Your task to perform on an android device: open app "Etsy: Buy & Sell Unique Items" Image 0: 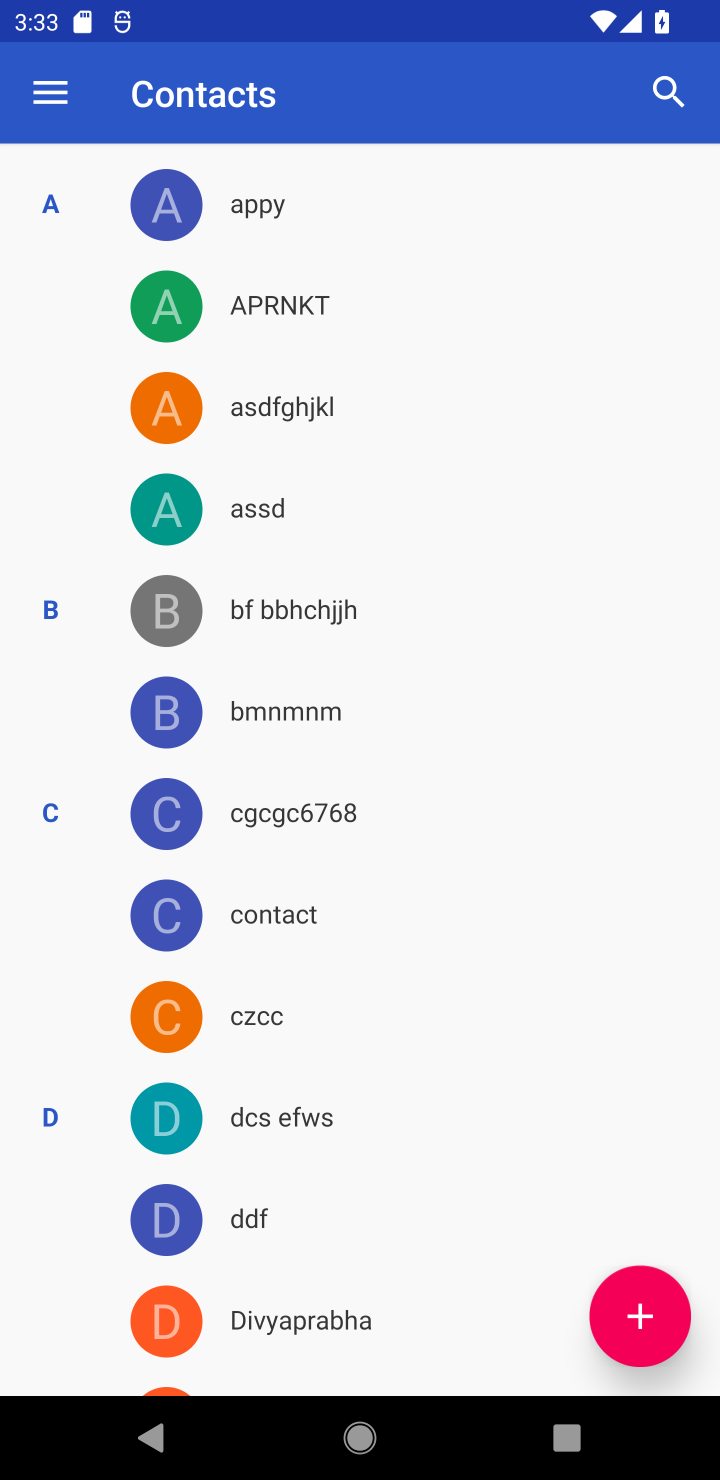
Step 0: press home button
Your task to perform on an android device: open app "Etsy: Buy & Sell Unique Items" Image 1: 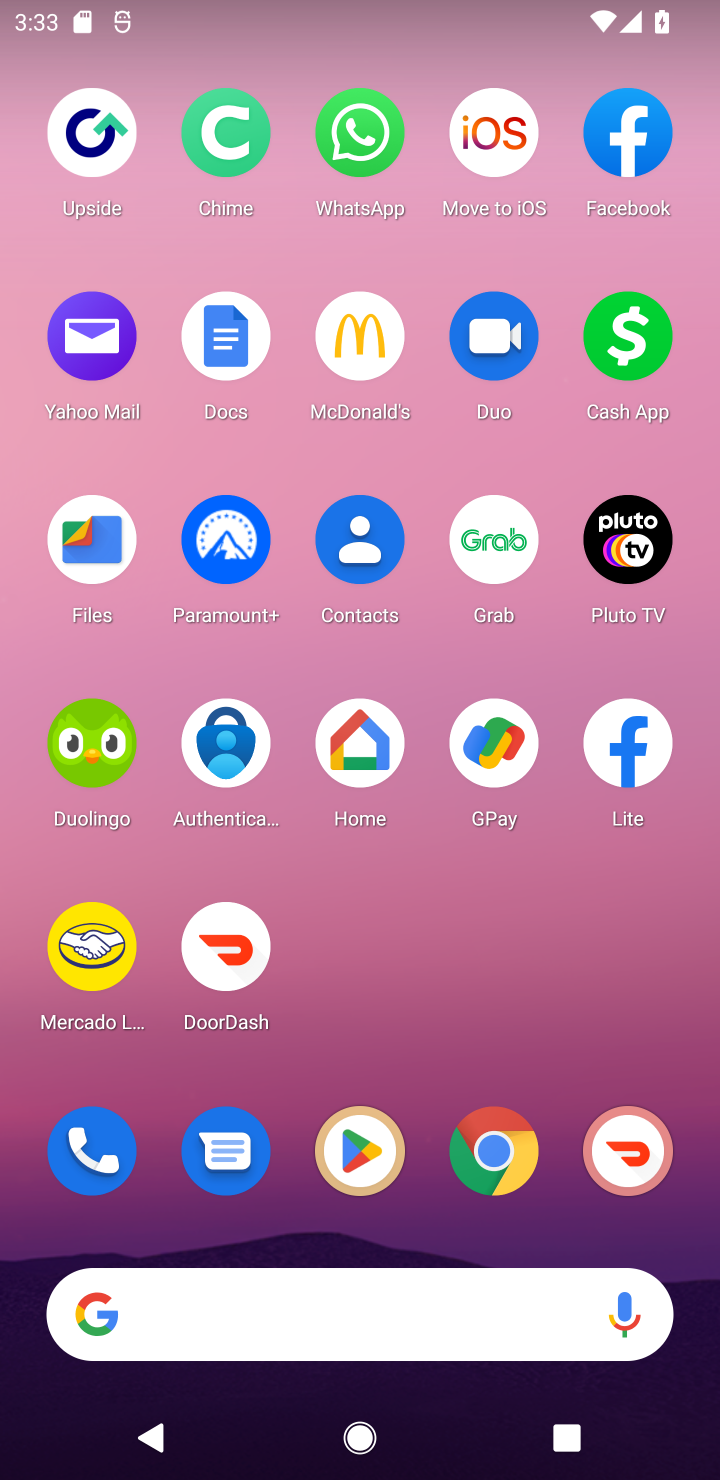
Step 1: click (346, 1181)
Your task to perform on an android device: open app "Etsy: Buy & Sell Unique Items" Image 2: 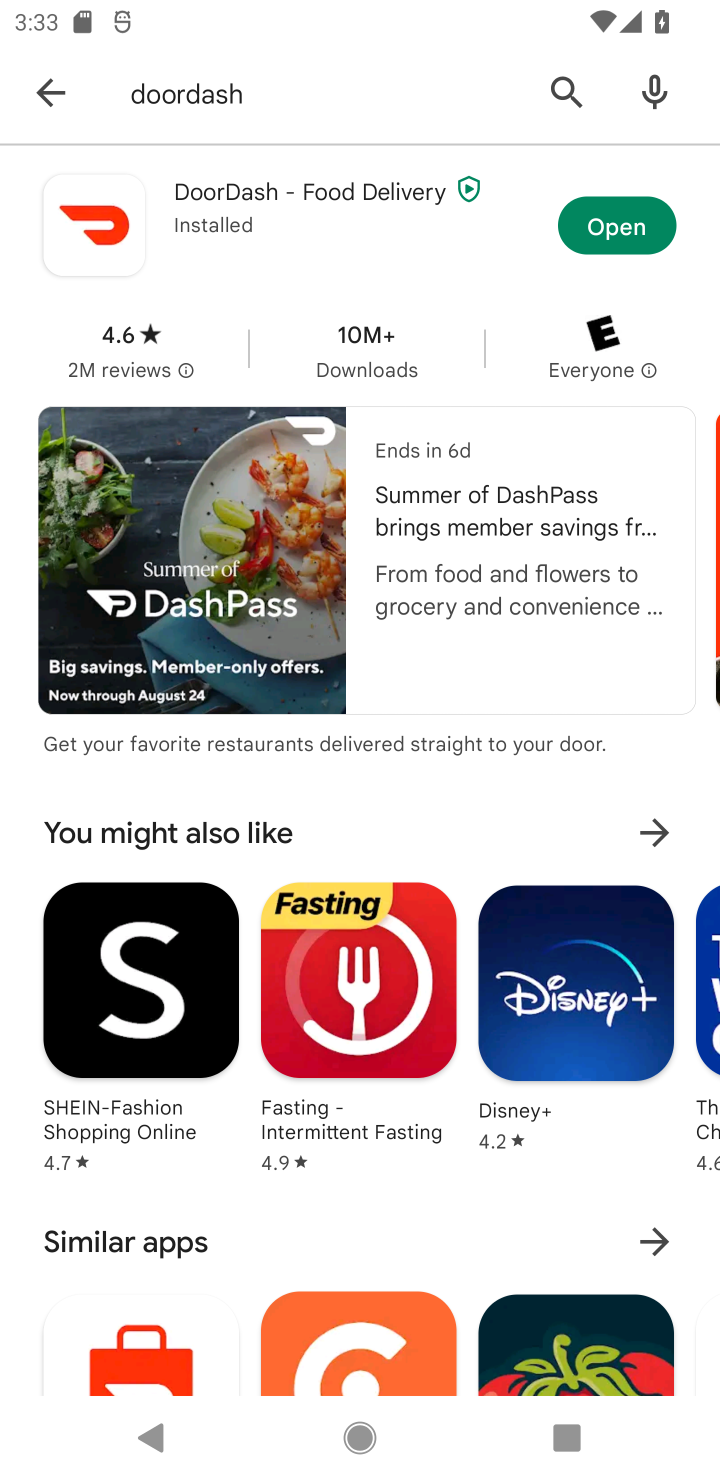
Step 2: click (565, 55)
Your task to perform on an android device: open app "Etsy: Buy & Sell Unique Items" Image 3: 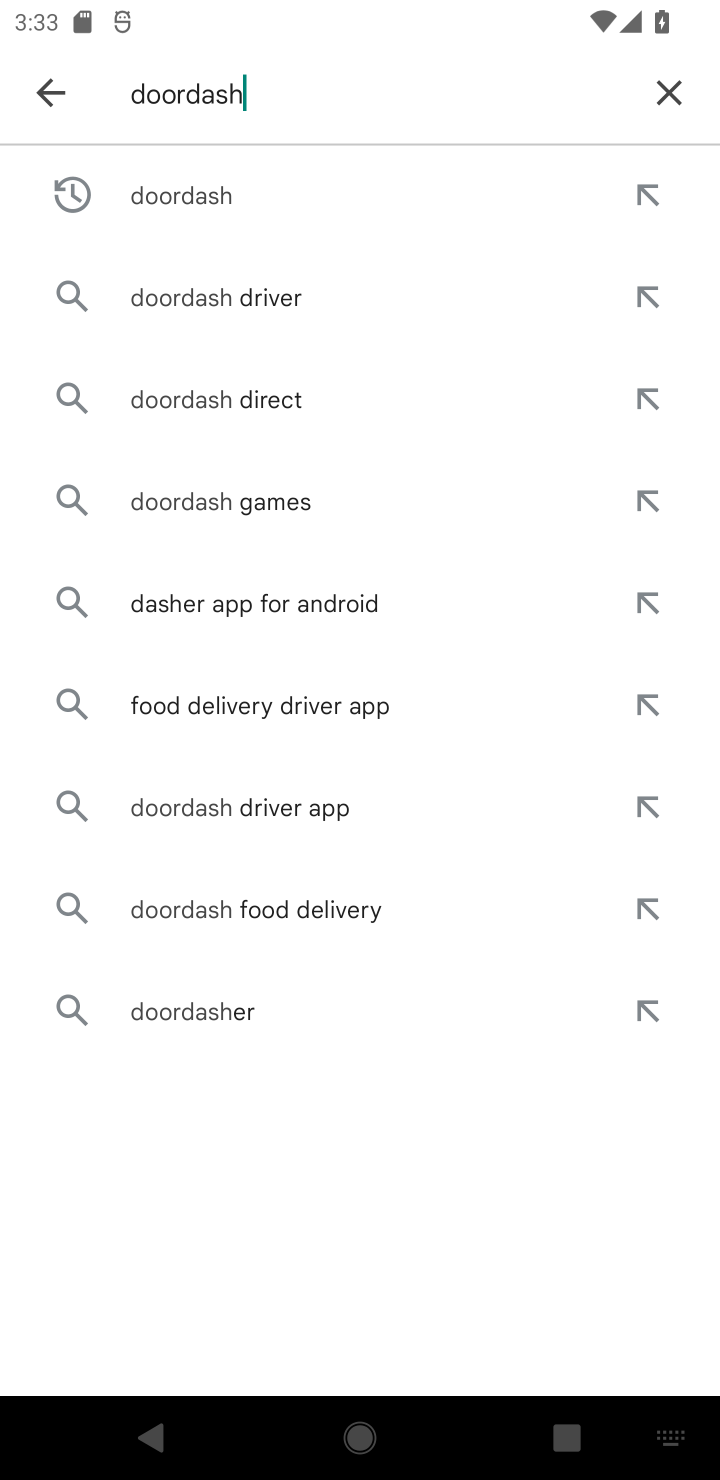
Step 3: click (671, 83)
Your task to perform on an android device: open app "Etsy: Buy & Sell Unique Items" Image 4: 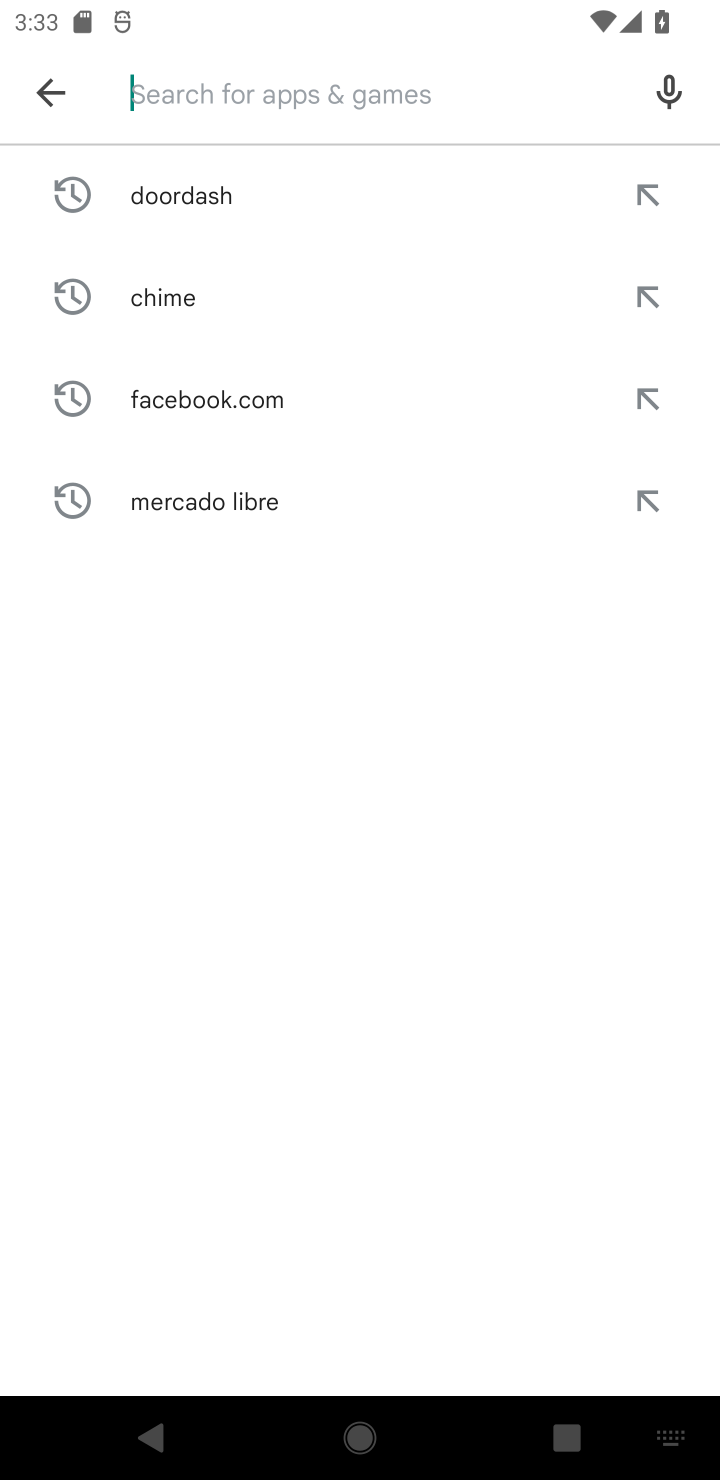
Step 4: type "etsy"
Your task to perform on an android device: open app "Etsy: Buy & Sell Unique Items" Image 5: 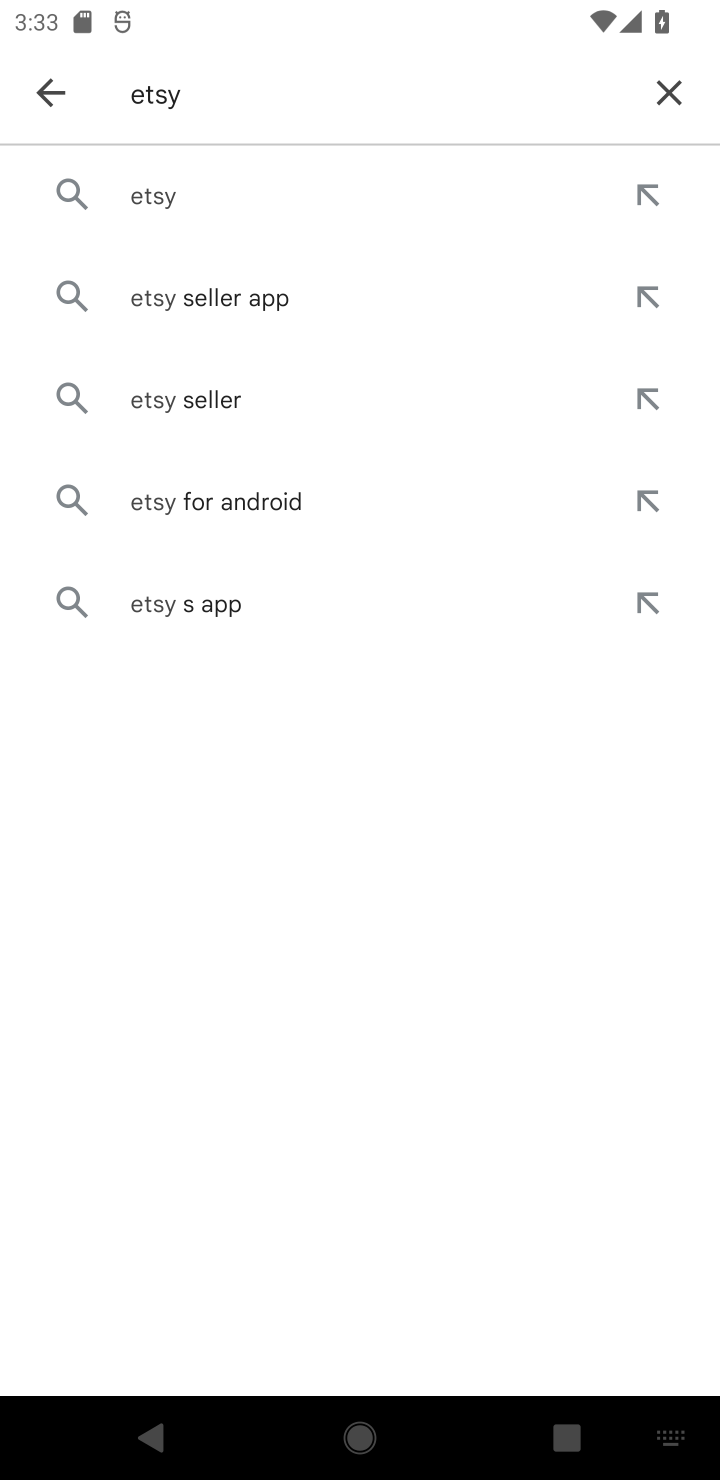
Step 5: click (223, 222)
Your task to perform on an android device: open app "Etsy: Buy & Sell Unique Items" Image 6: 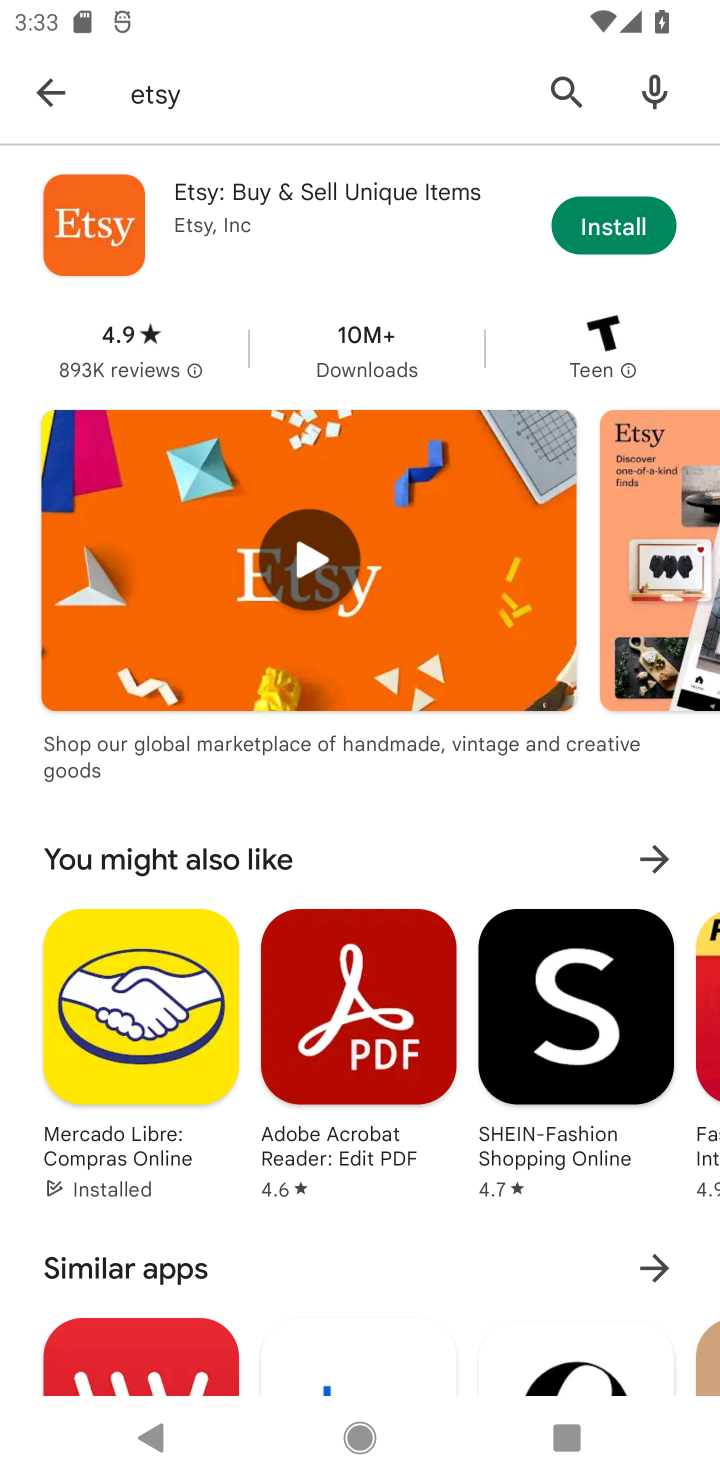
Step 6: click (575, 231)
Your task to perform on an android device: open app "Etsy: Buy & Sell Unique Items" Image 7: 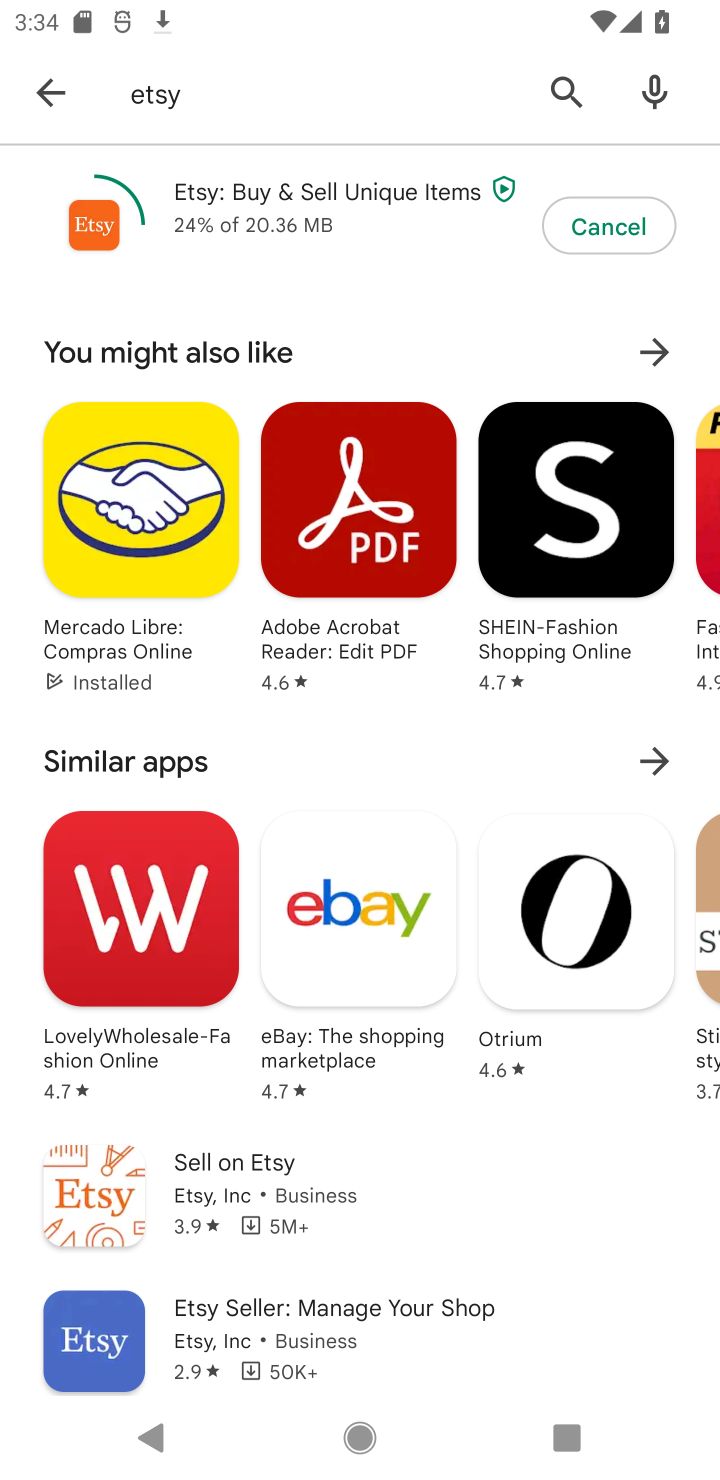
Step 7: task complete